Your task to perform on an android device: toggle notifications settings in the gmail app Image 0: 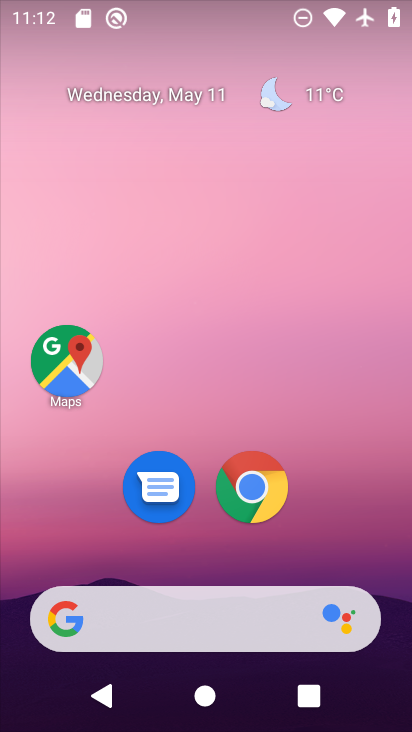
Step 0: drag from (352, 554) to (302, 3)
Your task to perform on an android device: toggle notifications settings in the gmail app Image 1: 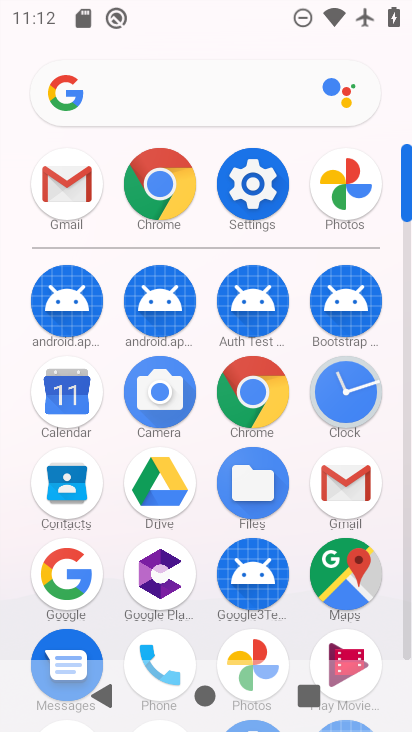
Step 1: drag from (0, 537) to (12, 266)
Your task to perform on an android device: toggle notifications settings in the gmail app Image 2: 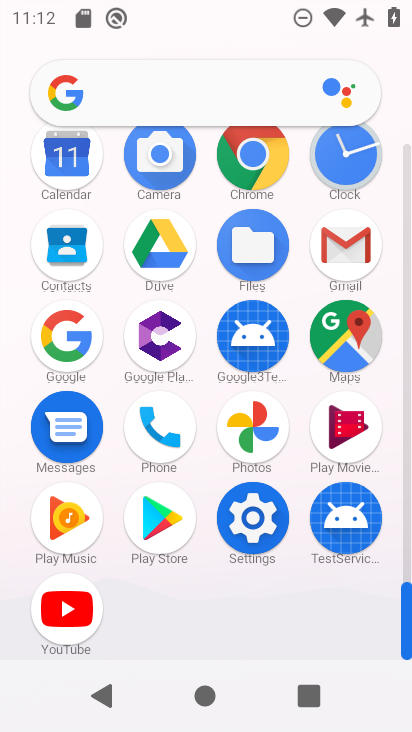
Step 2: drag from (11, 607) to (19, 311)
Your task to perform on an android device: toggle notifications settings in the gmail app Image 3: 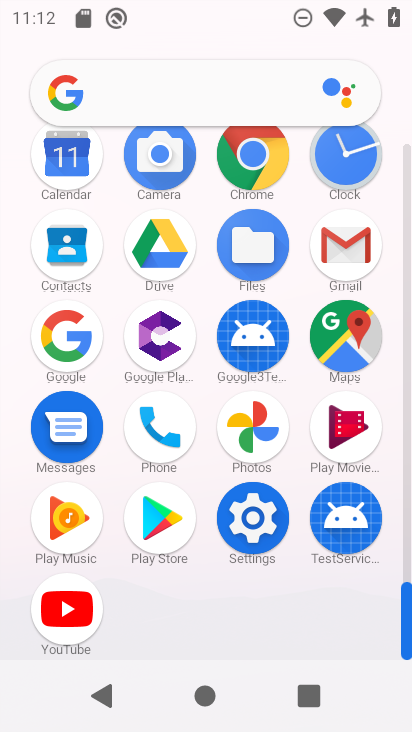
Step 3: click (352, 237)
Your task to perform on an android device: toggle notifications settings in the gmail app Image 4: 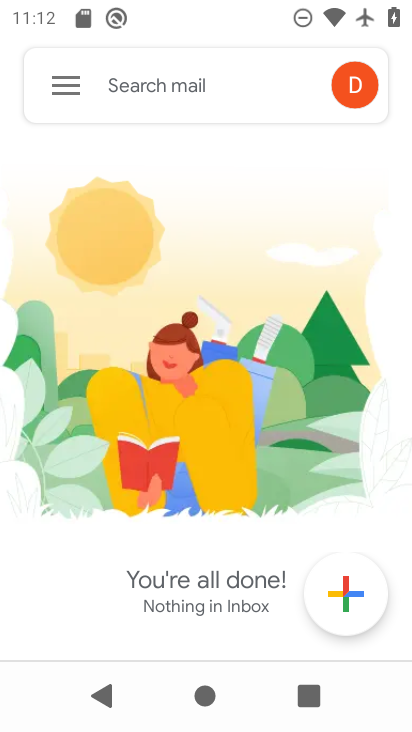
Step 4: click (70, 82)
Your task to perform on an android device: toggle notifications settings in the gmail app Image 5: 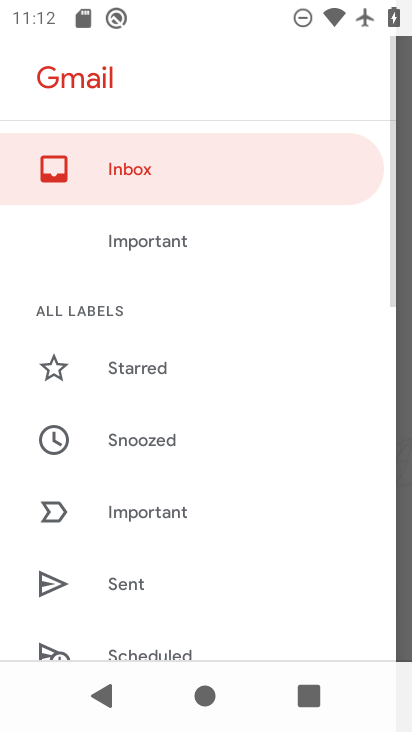
Step 5: drag from (234, 562) to (260, 177)
Your task to perform on an android device: toggle notifications settings in the gmail app Image 6: 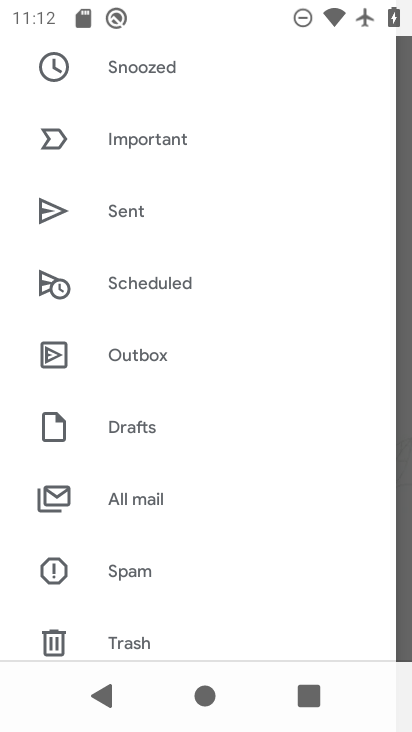
Step 6: drag from (213, 565) to (230, 143)
Your task to perform on an android device: toggle notifications settings in the gmail app Image 7: 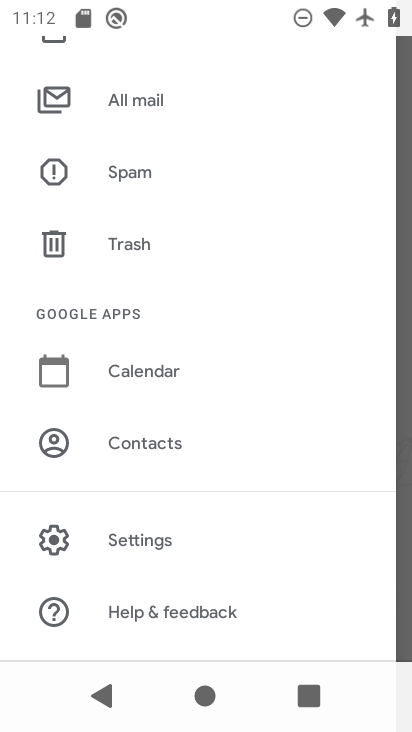
Step 7: click (139, 536)
Your task to perform on an android device: toggle notifications settings in the gmail app Image 8: 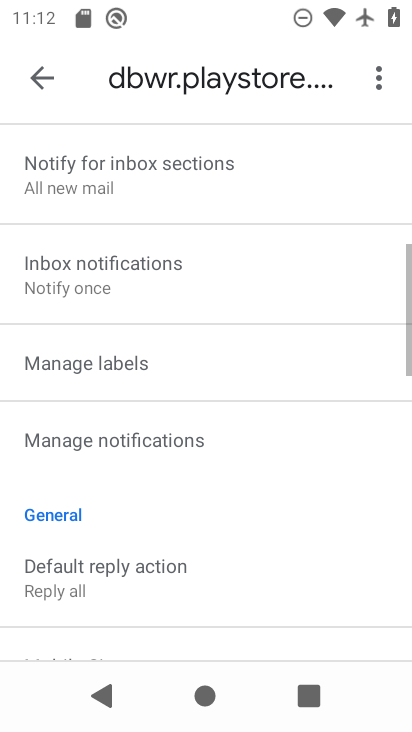
Step 8: drag from (269, 519) to (255, 187)
Your task to perform on an android device: toggle notifications settings in the gmail app Image 9: 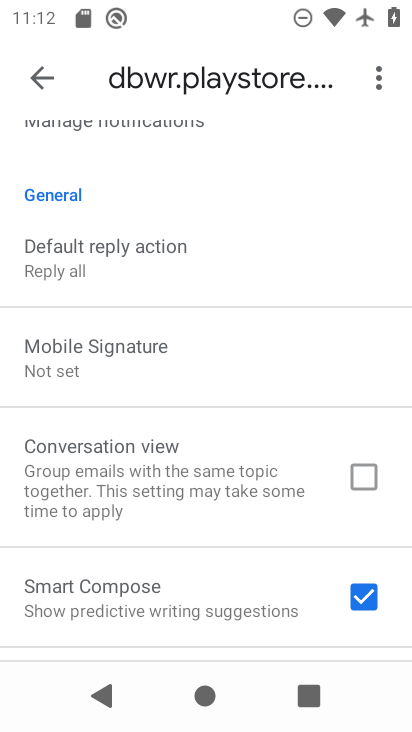
Step 9: drag from (232, 580) to (250, 154)
Your task to perform on an android device: toggle notifications settings in the gmail app Image 10: 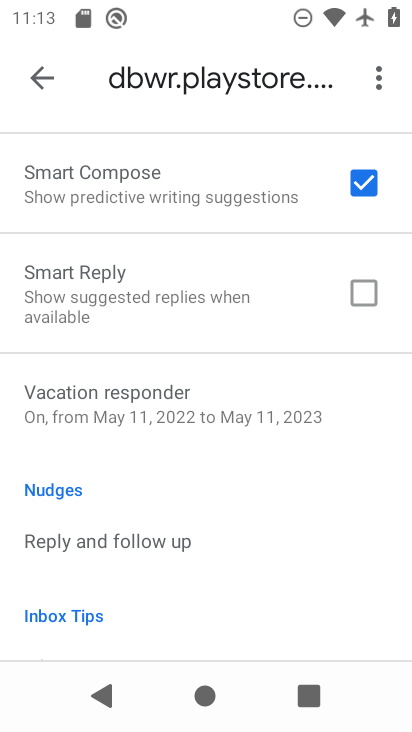
Step 10: drag from (190, 287) to (270, 631)
Your task to perform on an android device: toggle notifications settings in the gmail app Image 11: 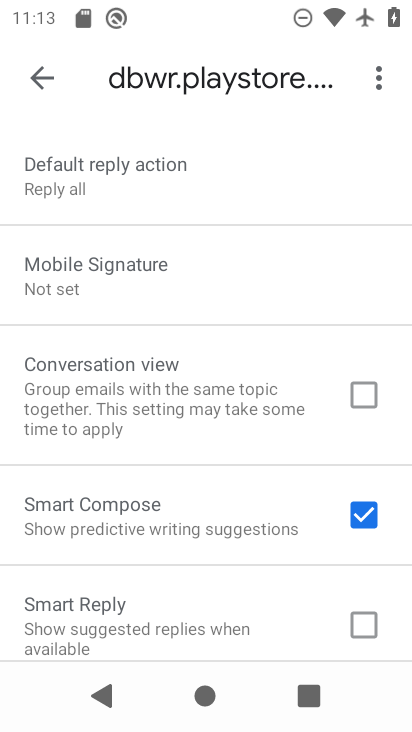
Step 11: drag from (208, 261) to (234, 669)
Your task to perform on an android device: toggle notifications settings in the gmail app Image 12: 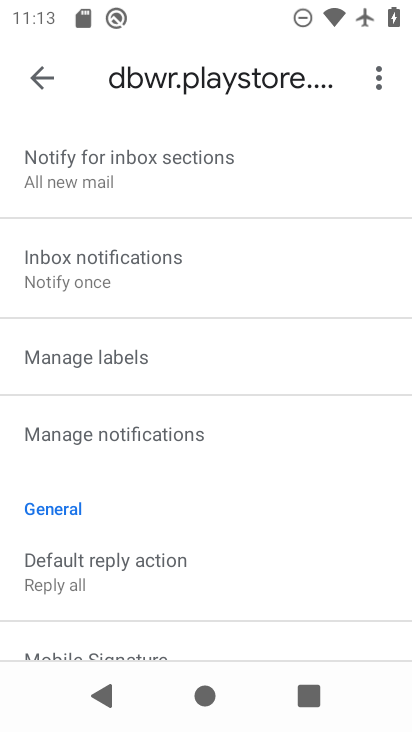
Step 12: click (166, 427)
Your task to perform on an android device: toggle notifications settings in the gmail app Image 13: 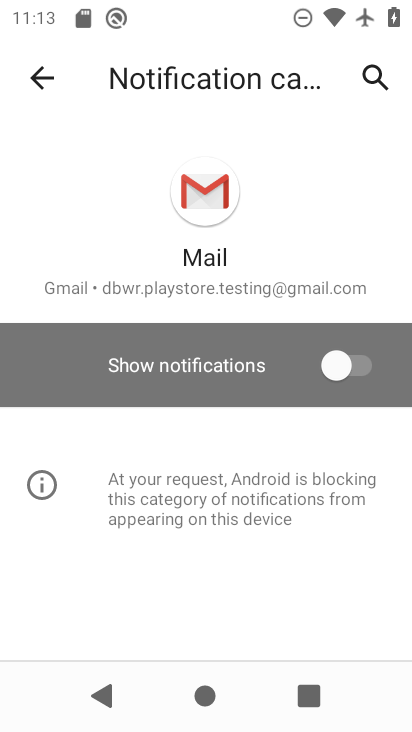
Step 13: click (339, 363)
Your task to perform on an android device: toggle notifications settings in the gmail app Image 14: 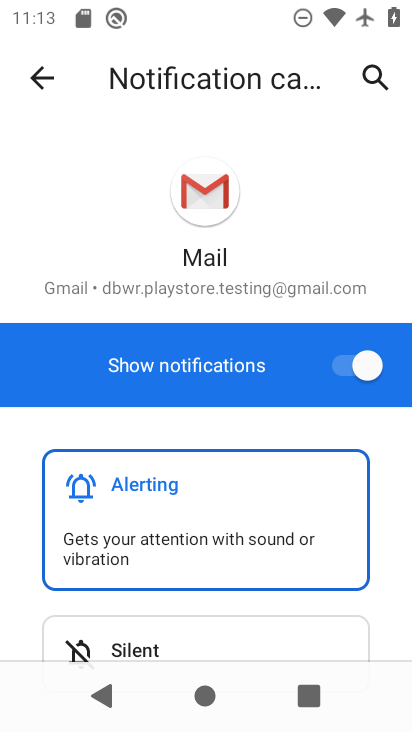
Step 14: task complete